Your task to perform on an android device: Go to battery settings Image 0: 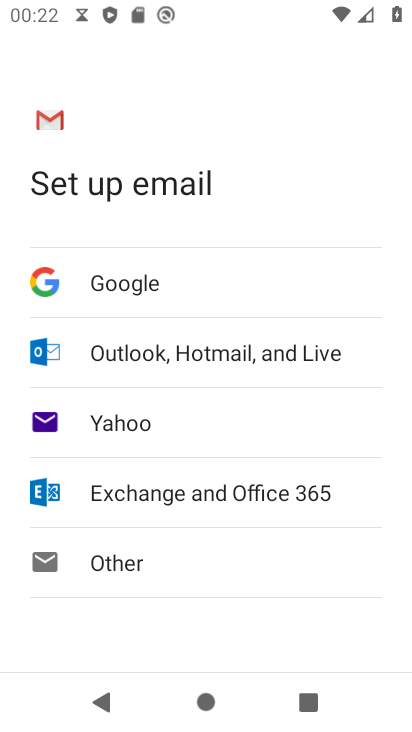
Step 0: press home button
Your task to perform on an android device: Go to battery settings Image 1: 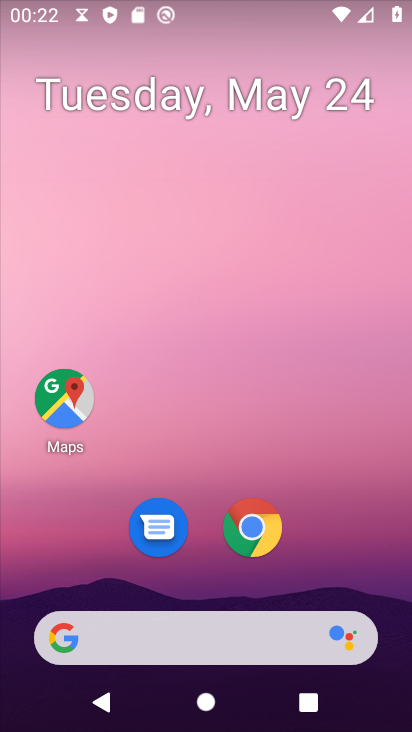
Step 1: drag from (142, 646) to (272, 135)
Your task to perform on an android device: Go to battery settings Image 2: 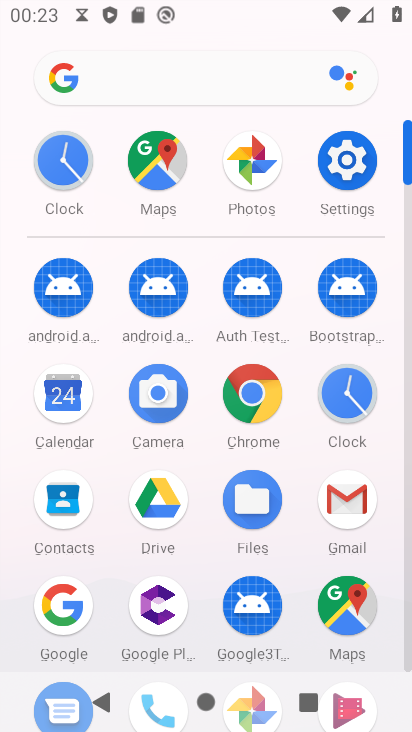
Step 2: click (353, 169)
Your task to perform on an android device: Go to battery settings Image 3: 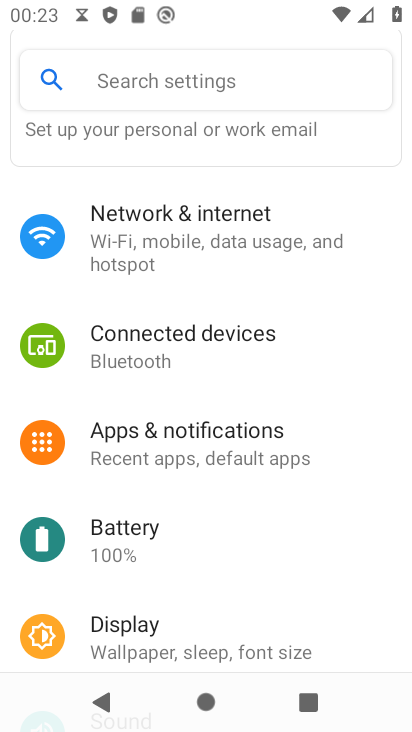
Step 3: drag from (187, 603) to (301, 157)
Your task to perform on an android device: Go to battery settings Image 4: 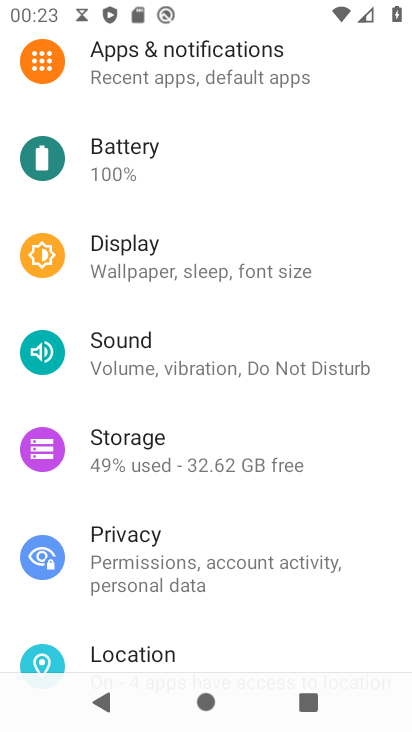
Step 4: drag from (233, 607) to (342, 154)
Your task to perform on an android device: Go to battery settings Image 5: 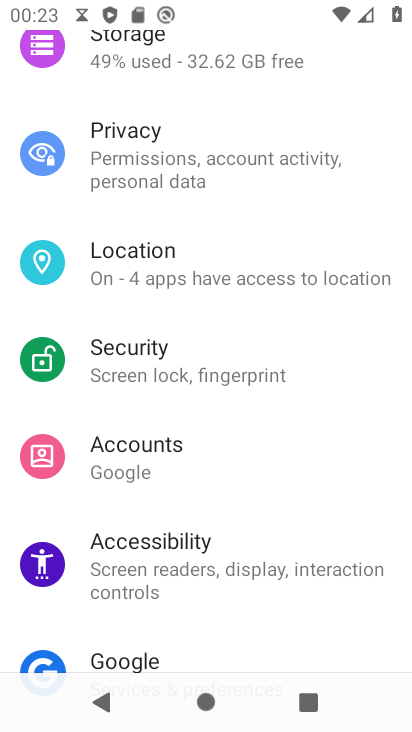
Step 5: drag from (248, 201) to (220, 505)
Your task to perform on an android device: Go to battery settings Image 6: 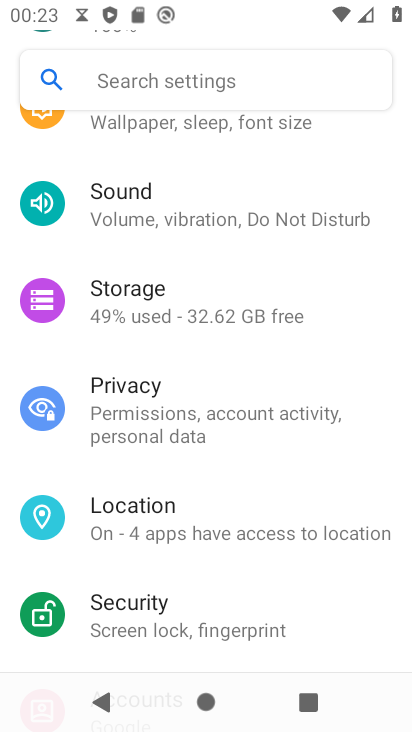
Step 6: drag from (254, 164) to (293, 619)
Your task to perform on an android device: Go to battery settings Image 7: 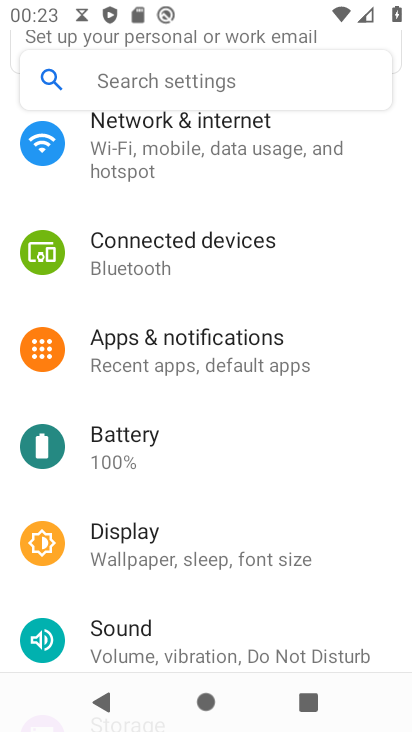
Step 7: click (115, 443)
Your task to perform on an android device: Go to battery settings Image 8: 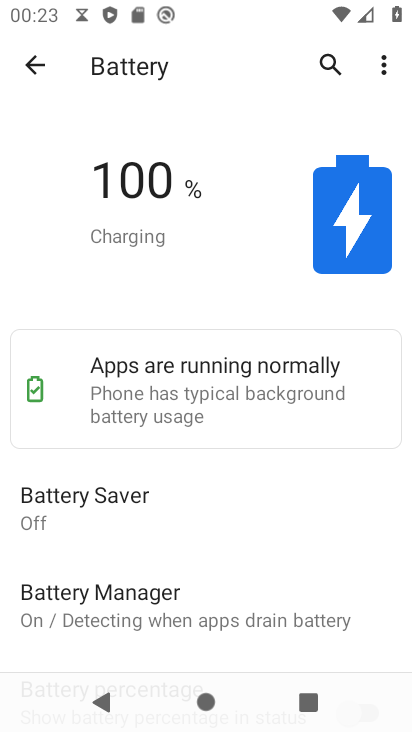
Step 8: task complete